Your task to perform on an android device: How much does a 3 bedroom apartment rent for in Atlanta? Image 0: 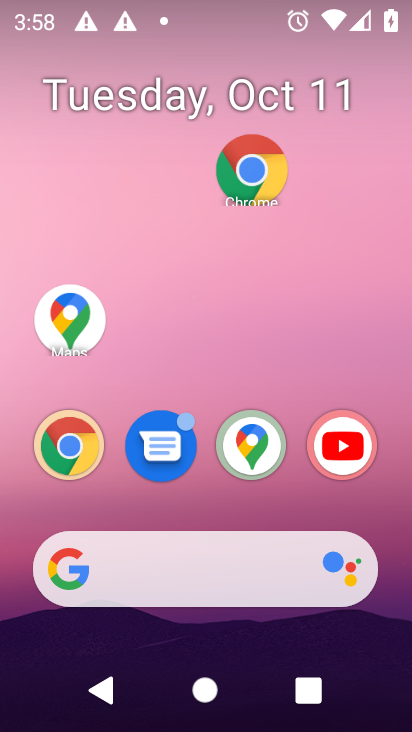
Step 0: click (252, 174)
Your task to perform on an android device: How much does a 3 bedroom apartment rent for in Atlanta? Image 1: 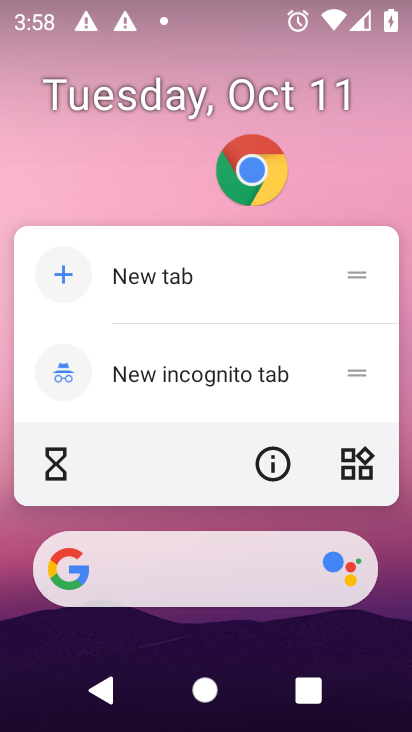
Step 1: click (250, 183)
Your task to perform on an android device: How much does a 3 bedroom apartment rent for in Atlanta? Image 2: 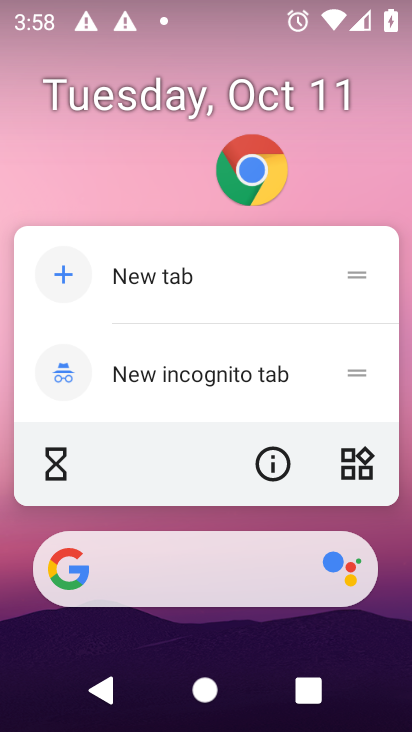
Step 2: click (258, 164)
Your task to perform on an android device: How much does a 3 bedroom apartment rent for in Atlanta? Image 3: 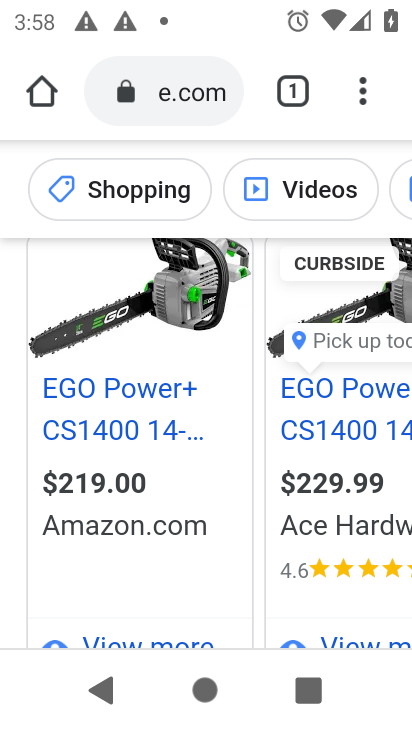
Step 3: click (163, 95)
Your task to perform on an android device: How much does a 3 bedroom apartment rent for in Atlanta? Image 4: 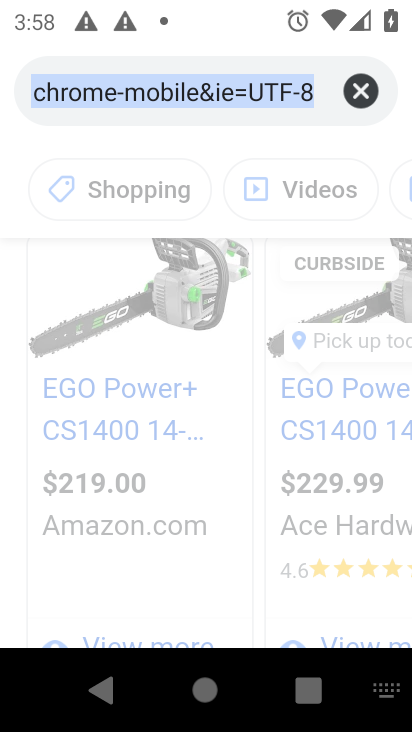
Step 4: click (369, 88)
Your task to perform on an android device: How much does a 3 bedroom apartment rent for in Atlanta? Image 5: 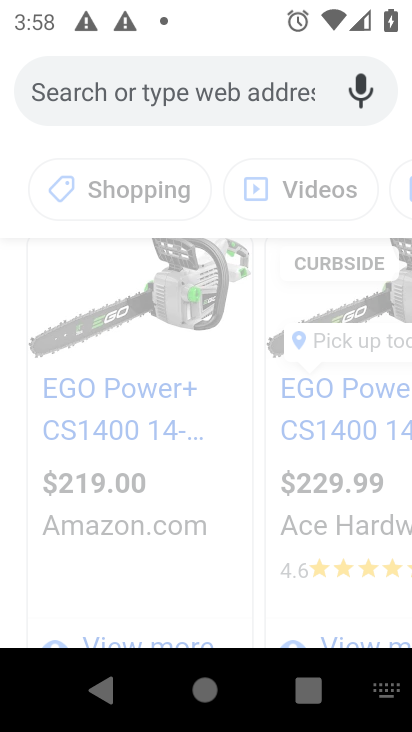
Step 5: type "3 bedroom apartment rent for in Atlanta"
Your task to perform on an android device: How much does a 3 bedroom apartment rent for in Atlanta? Image 6: 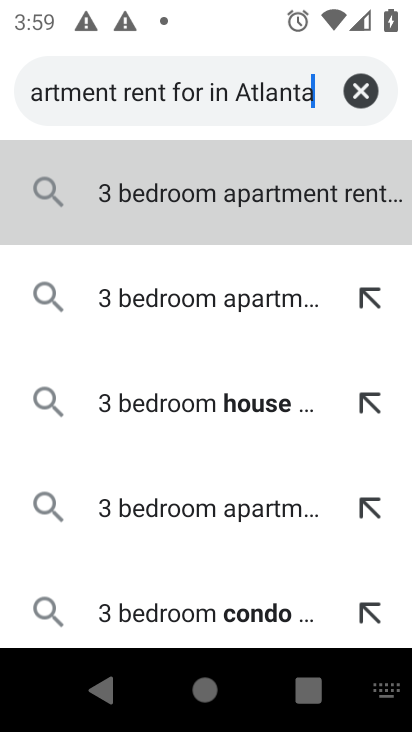
Step 6: click (218, 201)
Your task to perform on an android device: How much does a 3 bedroom apartment rent for in Atlanta? Image 7: 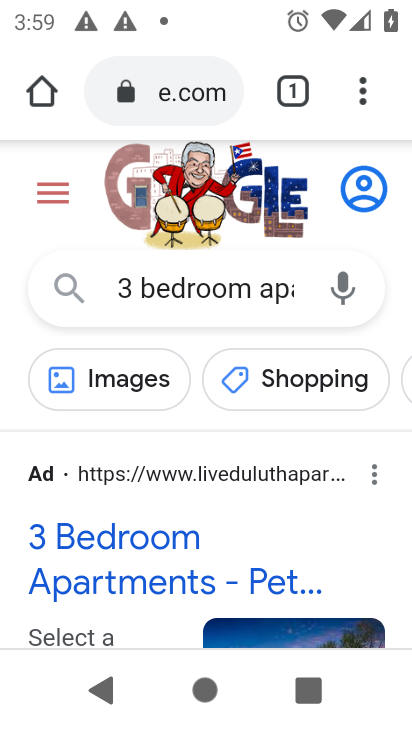
Step 7: drag from (184, 493) to (189, 241)
Your task to perform on an android device: How much does a 3 bedroom apartment rent for in Atlanta? Image 8: 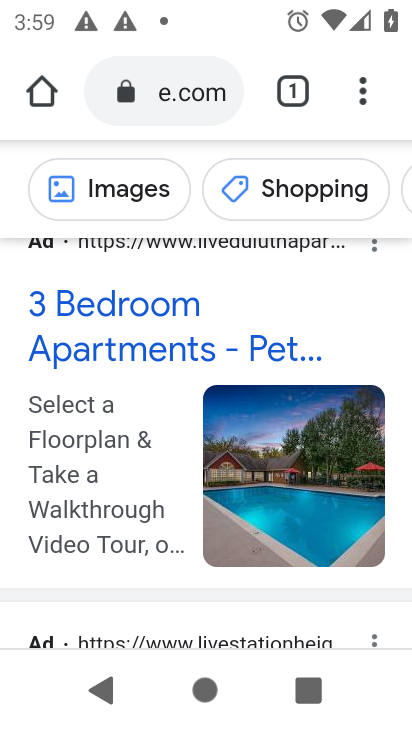
Step 8: drag from (185, 454) to (173, 91)
Your task to perform on an android device: How much does a 3 bedroom apartment rent for in Atlanta? Image 9: 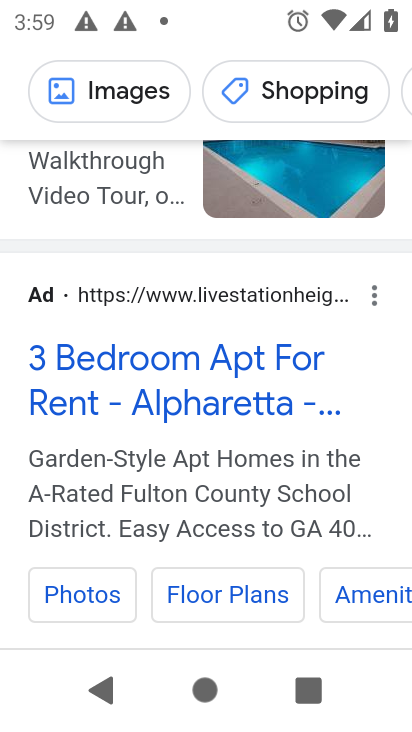
Step 9: drag from (202, 484) to (197, 54)
Your task to perform on an android device: How much does a 3 bedroom apartment rent for in Atlanta? Image 10: 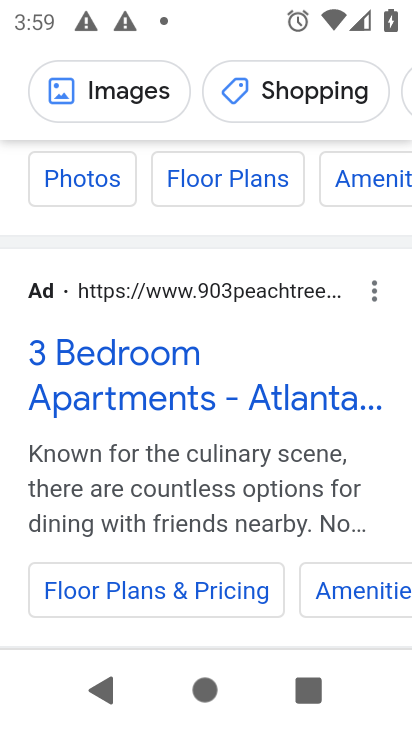
Step 10: drag from (172, 438) to (157, 96)
Your task to perform on an android device: How much does a 3 bedroom apartment rent for in Atlanta? Image 11: 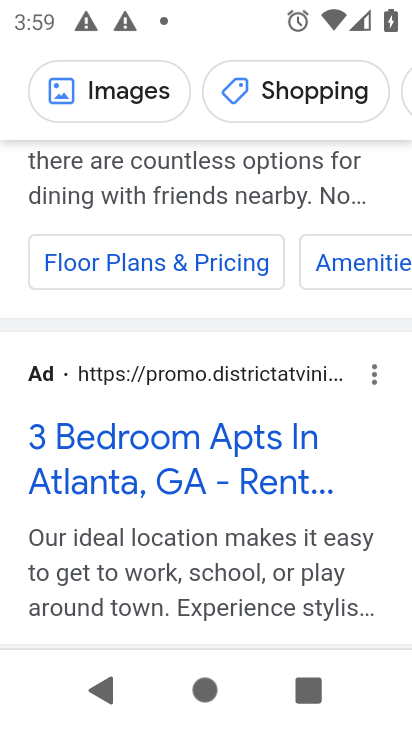
Step 11: drag from (157, 462) to (152, 145)
Your task to perform on an android device: How much does a 3 bedroom apartment rent for in Atlanta? Image 12: 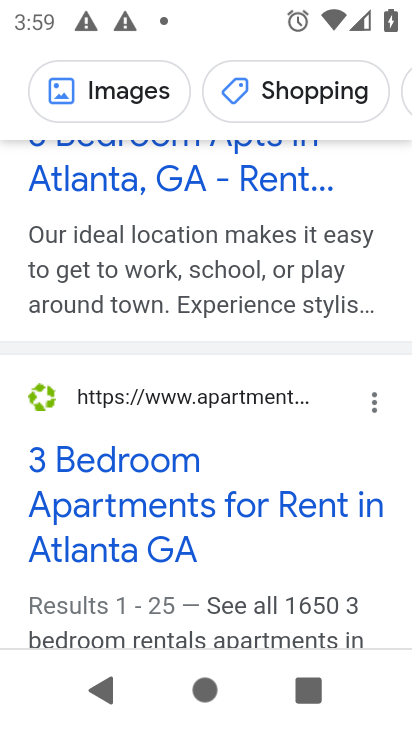
Step 12: drag from (178, 409) to (189, 154)
Your task to perform on an android device: How much does a 3 bedroom apartment rent for in Atlanta? Image 13: 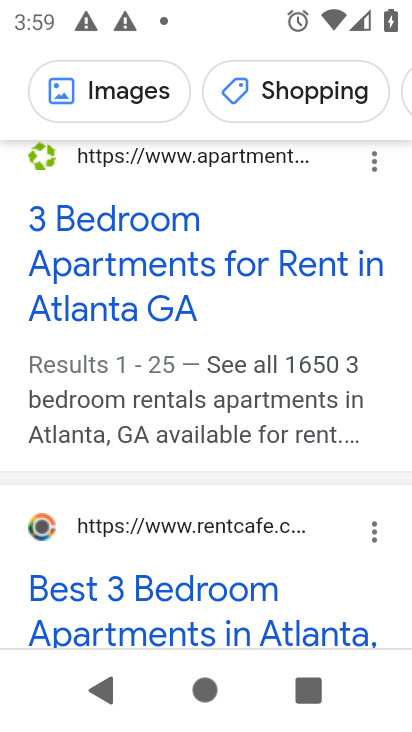
Step 13: drag from (165, 485) to (191, 218)
Your task to perform on an android device: How much does a 3 bedroom apartment rent for in Atlanta? Image 14: 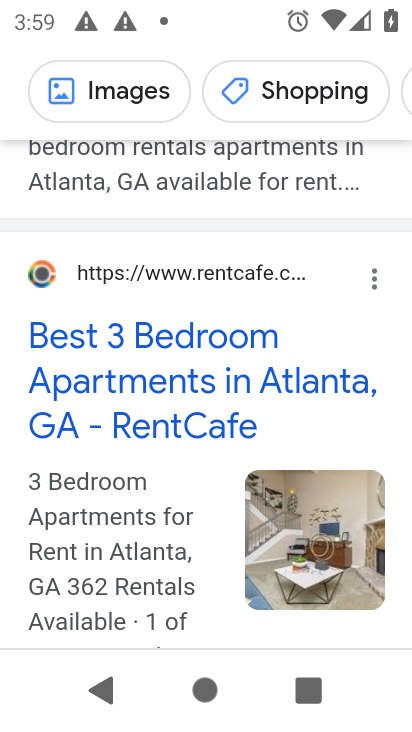
Step 14: click (169, 363)
Your task to perform on an android device: How much does a 3 bedroom apartment rent for in Atlanta? Image 15: 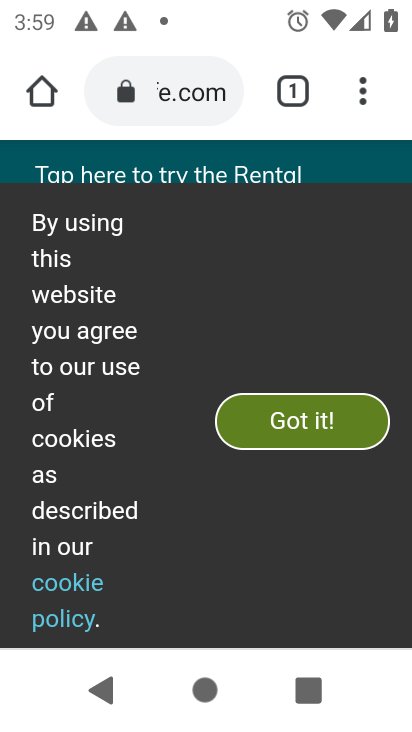
Step 15: drag from (158, 488) to (164, 85)
Your task to perform on an android device: How much does a 3 bedroom apartment rent for in Atlanta? Image 16: 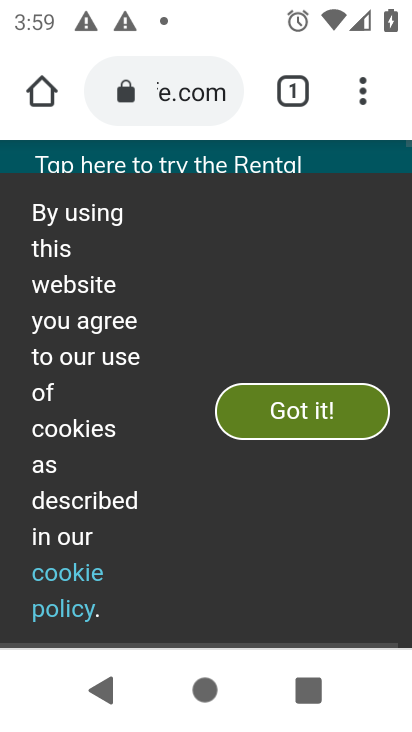
Step 16: drag from (197, 504) to (201, 217)
Your task to perform on an android device: How much does a 3 bedroom apartment rent for in Atlanta? Image 17: 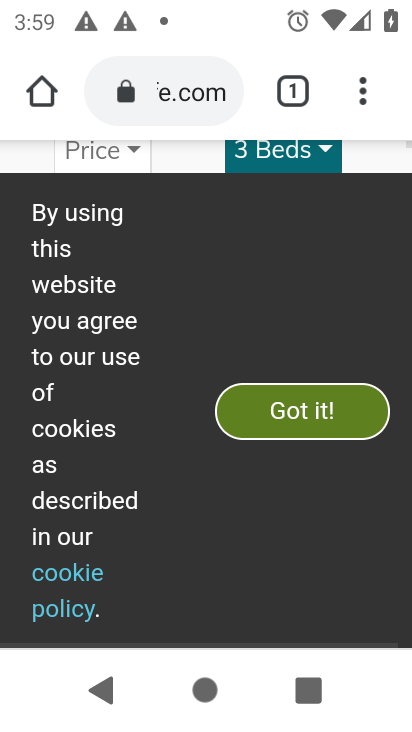
Step 17: drag from (157, 297) to (184, 623)
Your task to perform on an android device: How much does a 3 bedroom apartment rent for in Atlanta? Image 18: 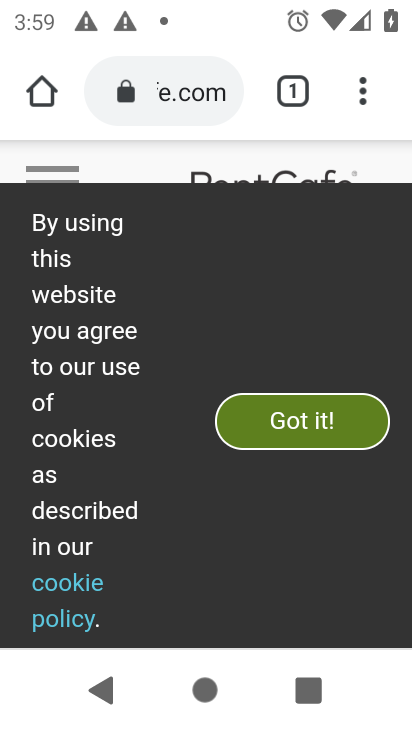
Step 18: click (281, 422)
Your task to perform on an android device: How much does a 3 bedroom apartment rent for in Atlanta? Image 19: 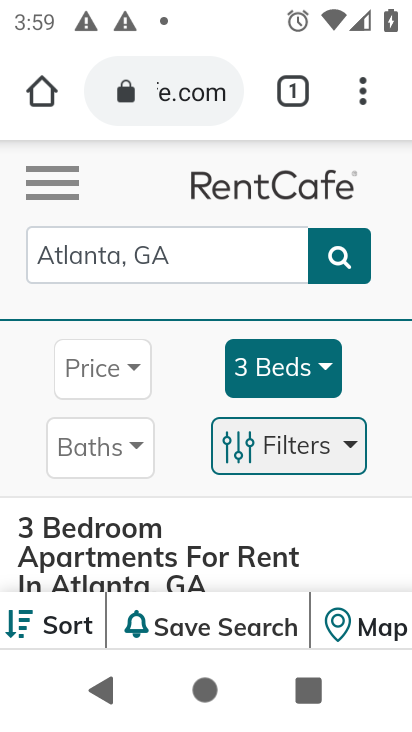
Step 19: task complete